Your task to perform on an android device: toggle pop-ups in chrome Image 0: 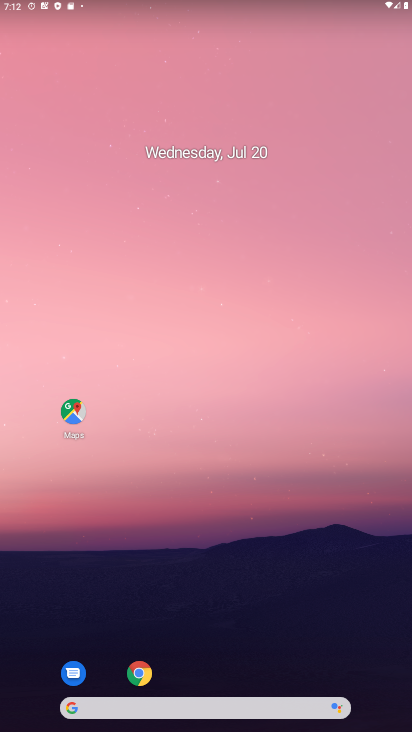
Step 0: drag from (378, 658) to (197, 12)
Your task to perform on an android device: toggle pop-ups in chrome Image 1: 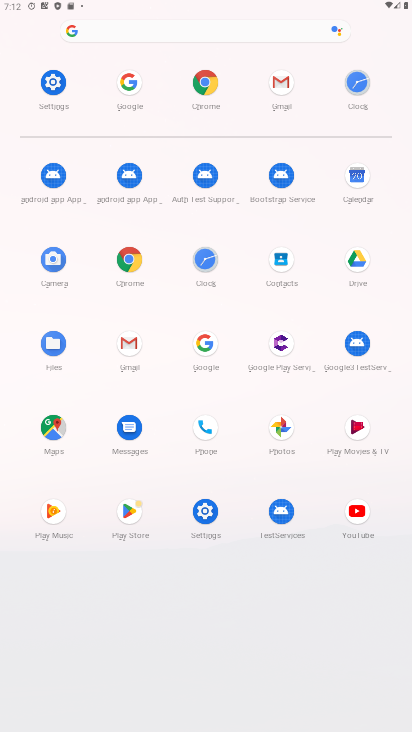
Step 1: click (132, 259)
Your task to perform on an android device: toggle pop-ups in chrome Image 2: 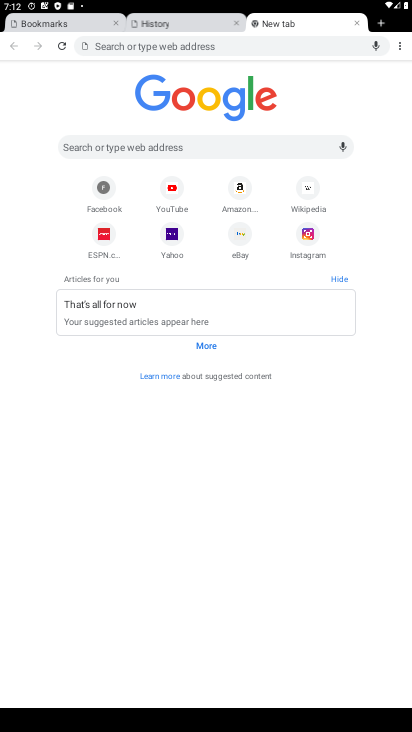
Step 2: click (401, 44)
Your task to perform on an android device: toggle pop-ups in chrome Image 3: 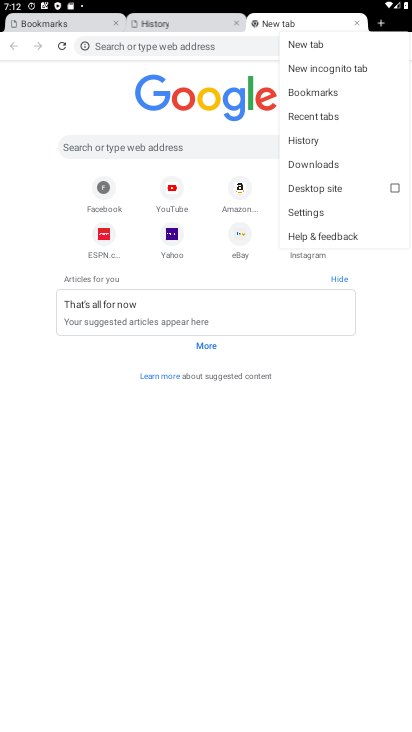
Step 3: click (324, 213)
Your task to perform on an android device: toggle pop-ups in chrome Image 4: 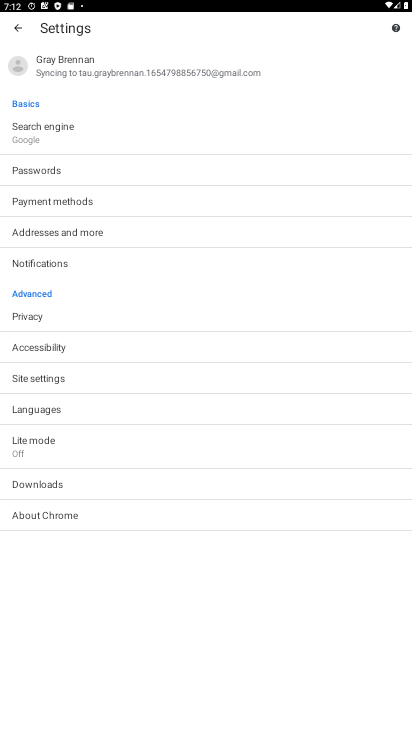
Step 4: click (91, 370)
Your task to perform on an android device: toggle pop-ups in chrome Image 5: 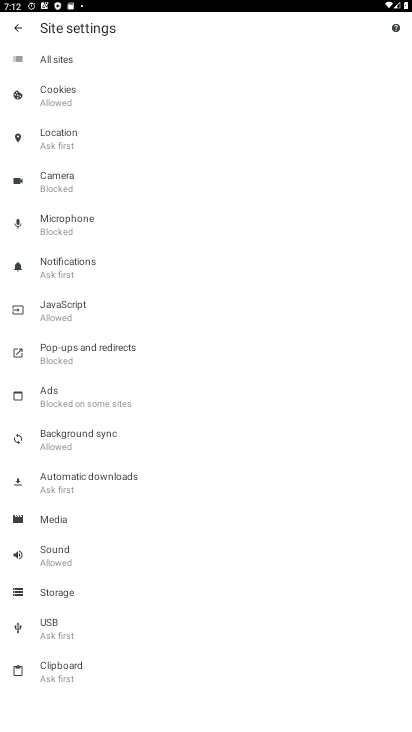
Step 5: click (96, 351)
Your task to perform on an android device: toggle pop-ups in chrome Image 6: 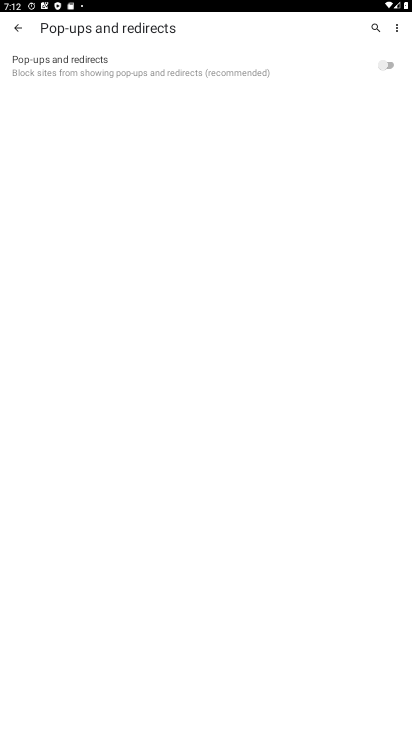
Step 6: click (368, 69)
Your task to perform on an android device: toggle pop-ups in chrome Image 7: 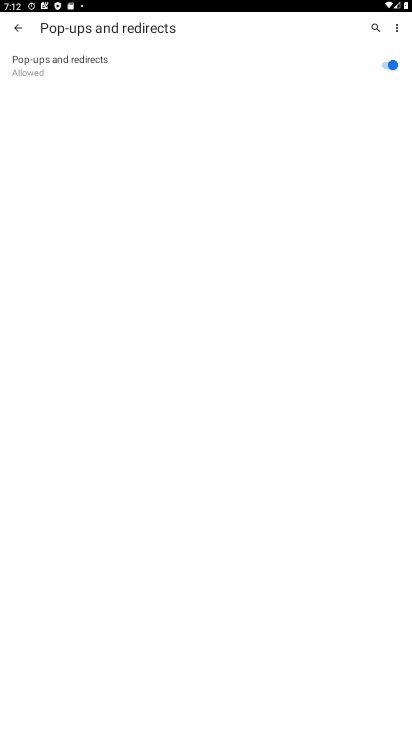
Step 7: task complete